Your task to perform on an android device: Do I have any events tomorrow? Image 0: 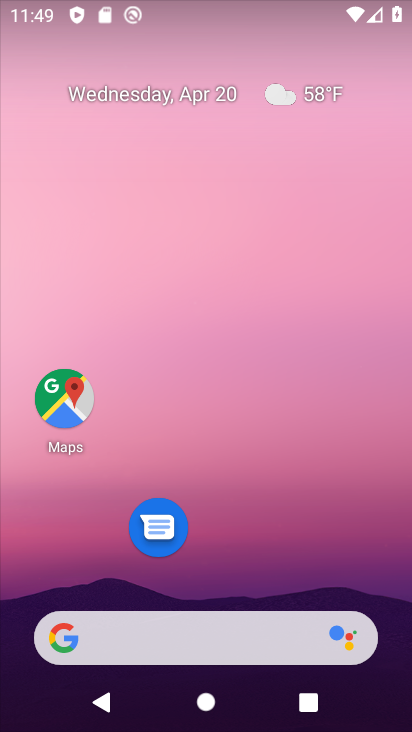
Step 0: press home button
Your task to perform on an android device: Do I have any events tomorrow? Image 1: 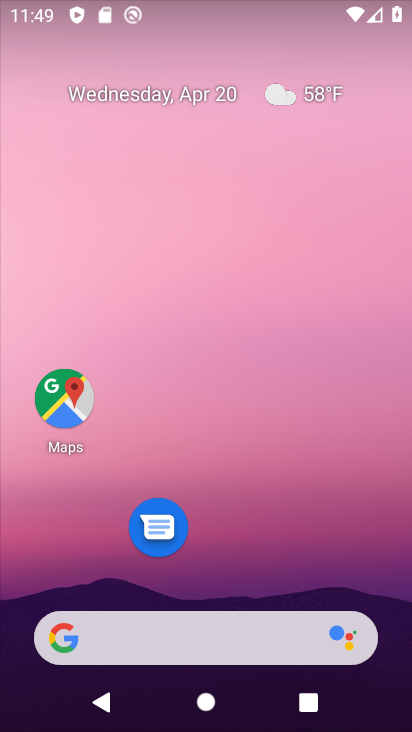
Step 1: drag from (214, 607) to (183, 131)
Your task to perform on an android device: Do I have any events tomorrow? Image 2: 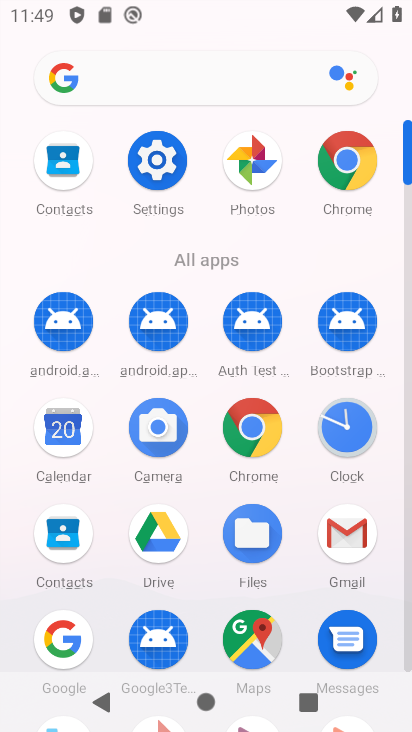
Step 2: click (63, 431)
Your task to perform on an android device: Do I have any events tomorrow? Image 3: 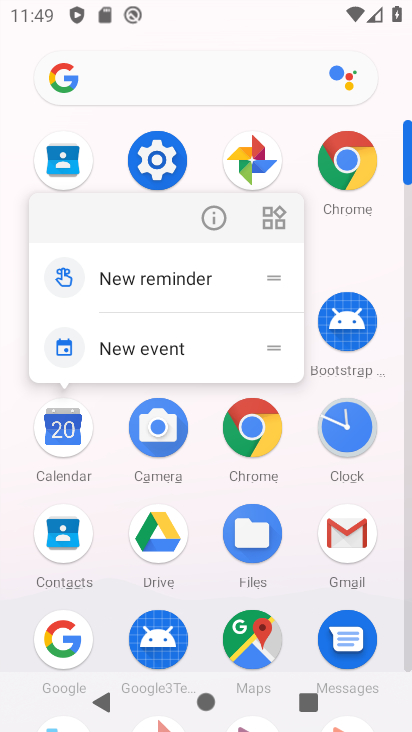
Step 3: click (63, 431)
Your task to perform on an android device: Do I have any events tomorrow? Image 4: 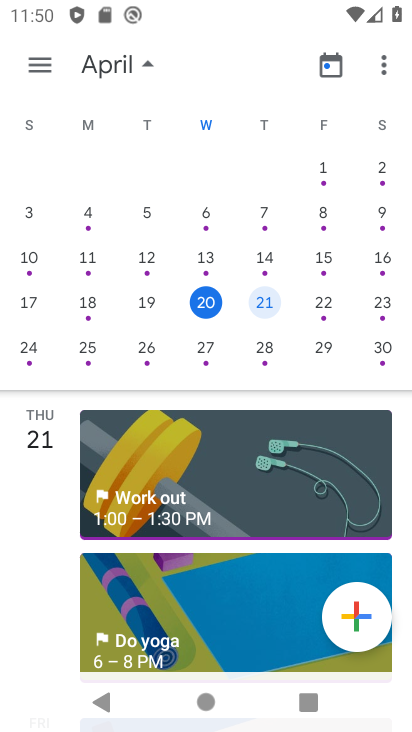
Step 4: click (203, 300)
Your task to perform on an android device: Do I have any events tomorrow? Image 5: 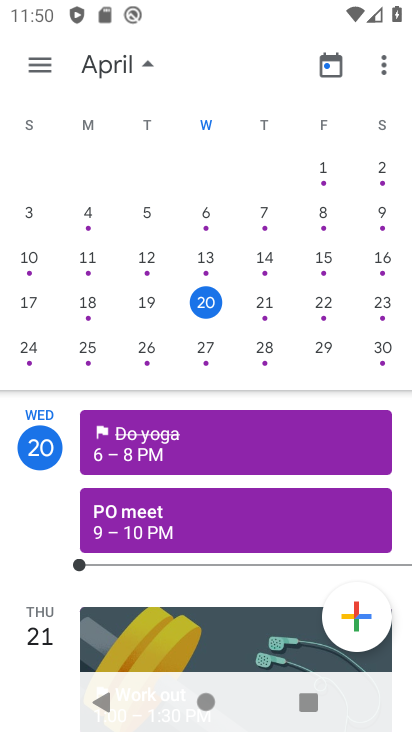
Step 5: task complete